Your task to perform on an android device: delete location history Image 0: 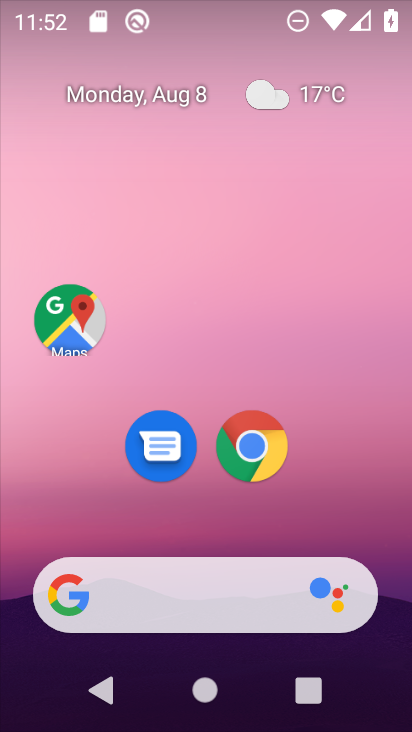
Step 0: click (71, 323)
Your task to perform on an android device: delete location history Image 1: 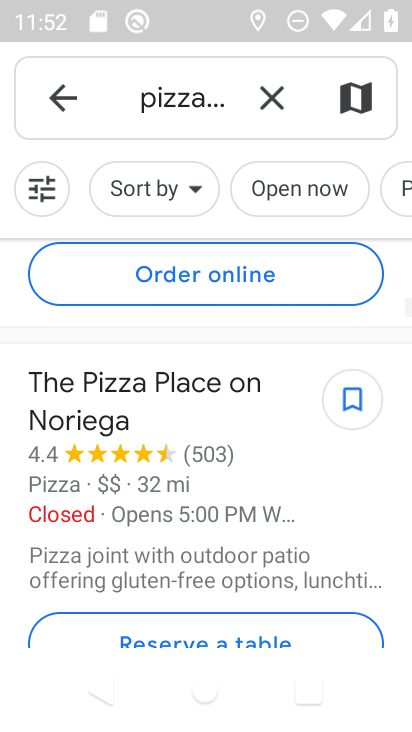
Step 1: click (272, 97)
Your task to perform on an android device: delete location history Image 2: 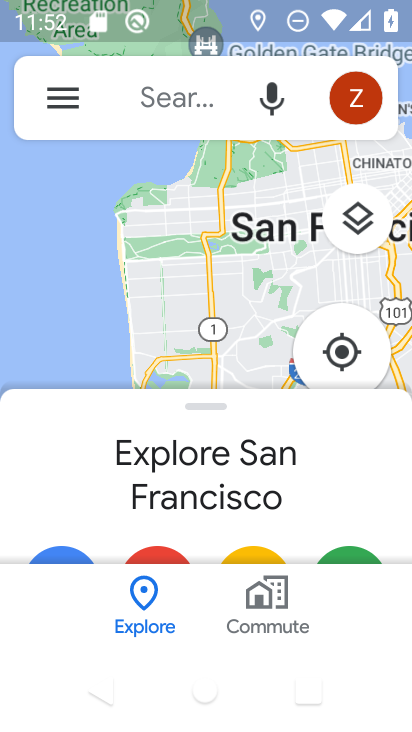
Step 2: click (57, 92)
Your task to perform on an android device: delete location history Image 3: 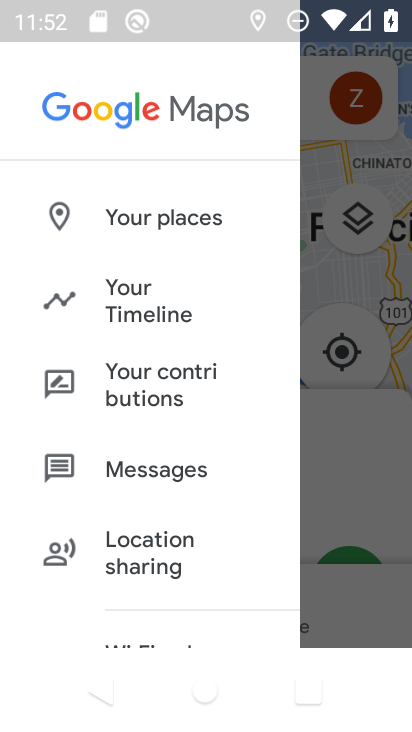
Step 3: drag from (218, 590) to (238, 299)
Your task to perform on an android device: delete location history Image 4: 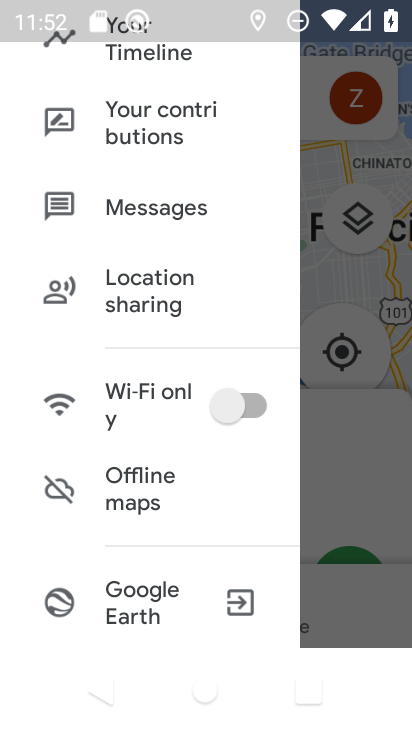
Step 4: drag from (197, 585) to (221, 224)
Your task to perform on an android device: delete location history Image 5: 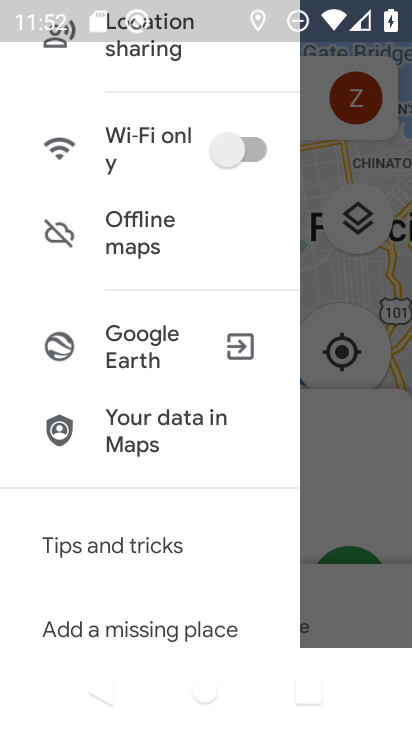
Step 5: drag from (224, 572) to (220, 255)
Your task to perform on an android device: delete location history Image 6: 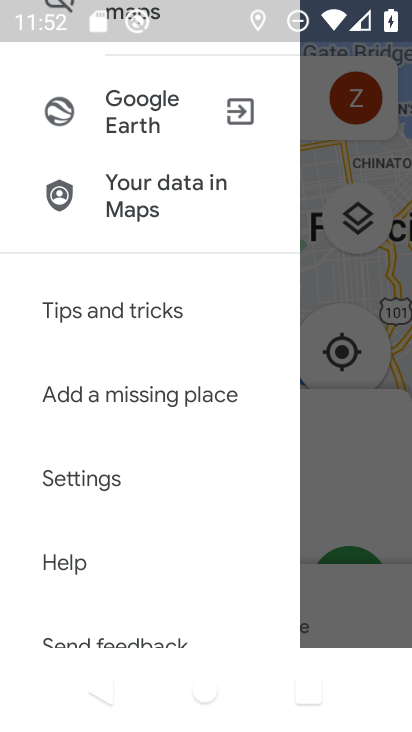
Step 6: click (101, 481)
Your task to perform on an android device: delete location history Image 7: 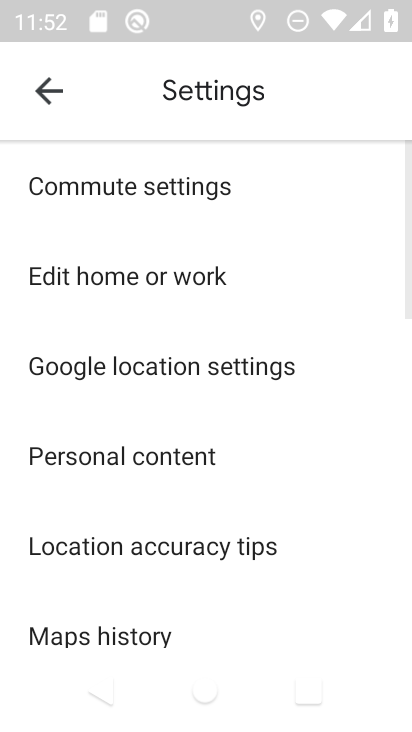
Step 7: click (101, 481)
Your task to perform on an android device: delete location history Image 8: 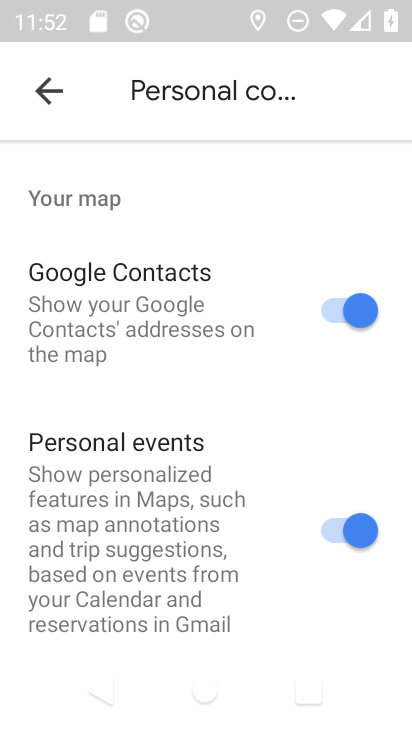
Step 8: drag from (276, 620) to (280, 223)
Your task to perform on an android device: delete location history Image 9: 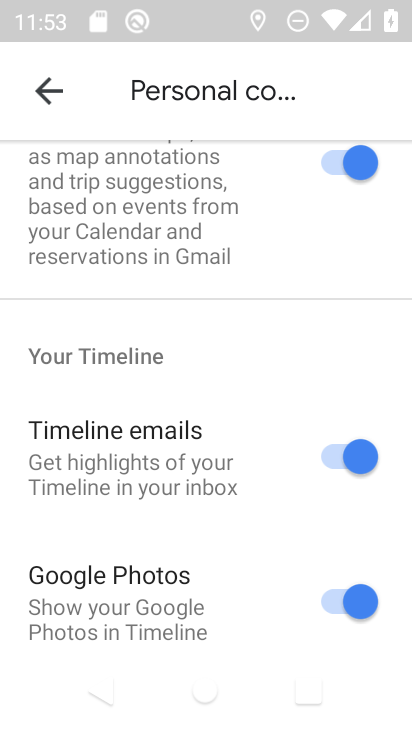
Step 9: drag from (274, 633) to (268, 208)
Your task to perform on an android device: delete location history Image 10: 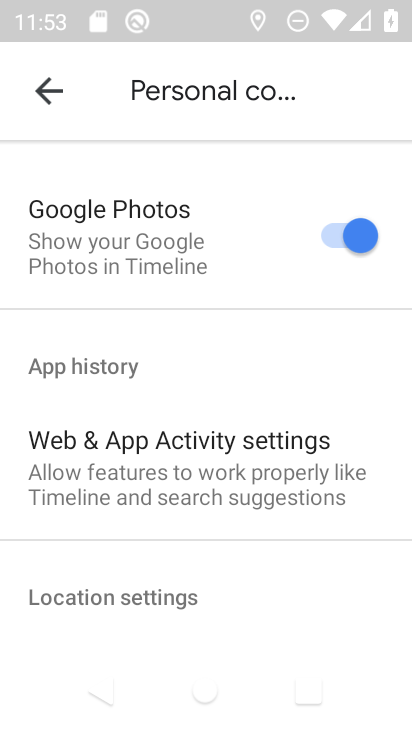
Step 10: drag from (228, 564) to (205, 172)
Your task to perform on an android device: delete location history Image 11: 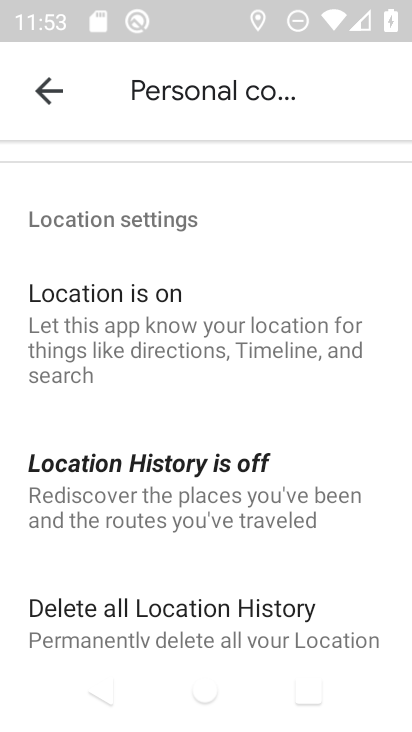
Step 11: click (175, 605)
Your task to perform on an android device: delete location history Image 12: 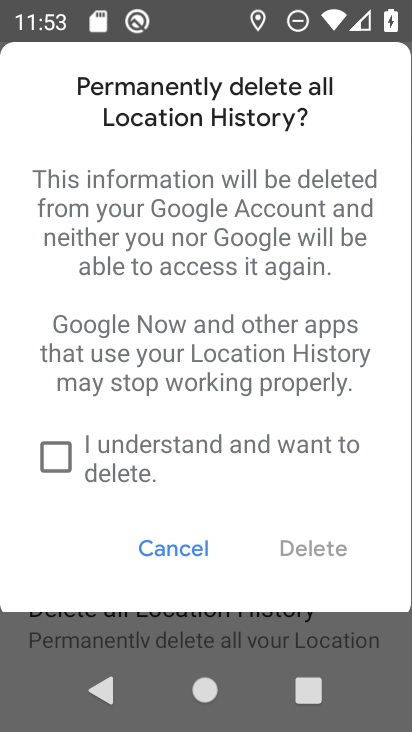
Step 12: click (57, 447)
Your task to perform on an android device: delete location history Image 13: 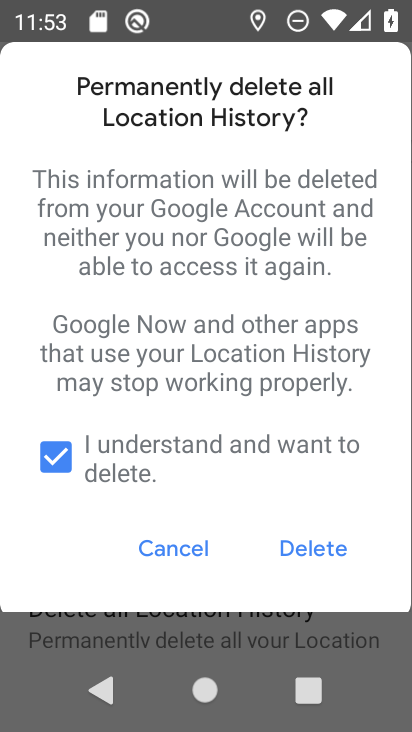
Step 13: click (304, 546)
Your task to perform on an android device: delete location history Image 14: 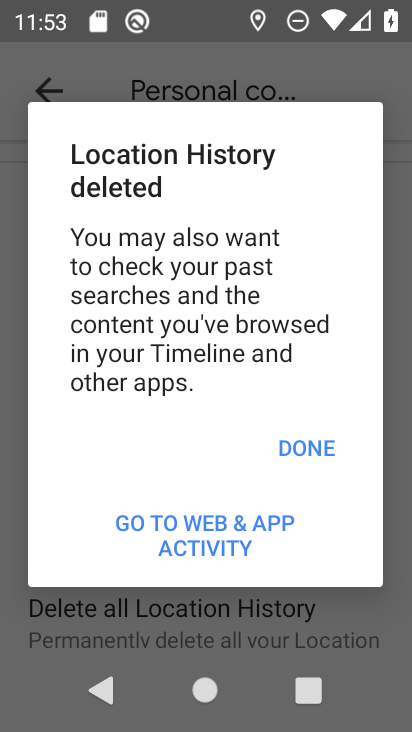
Step 14: click (304, 452)
Your task to perform on an android device: delete location history Image 15: 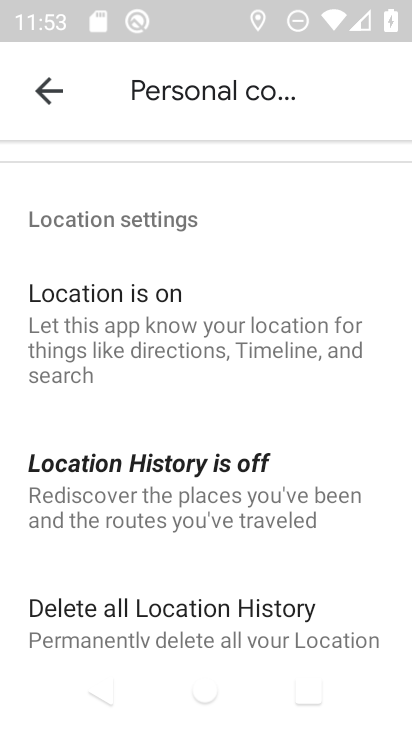
Step 15: task complete